Your task to perform on an android device: Open calendar and show me the first week of next month Image 0: 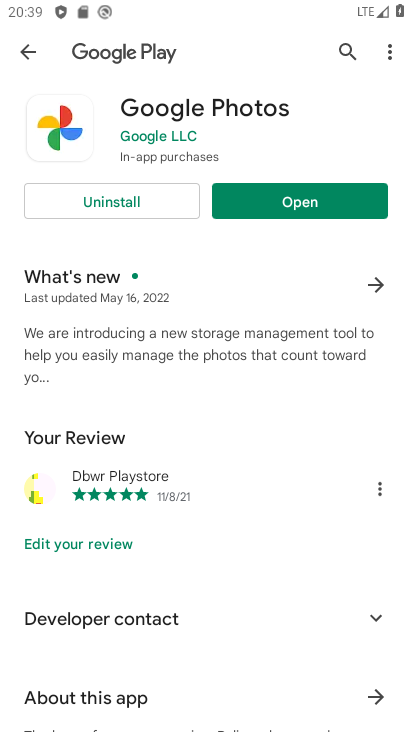
Step 0: press home button
Your task to perform on an android device: Open calendar and show me the first week of next month Image 1: 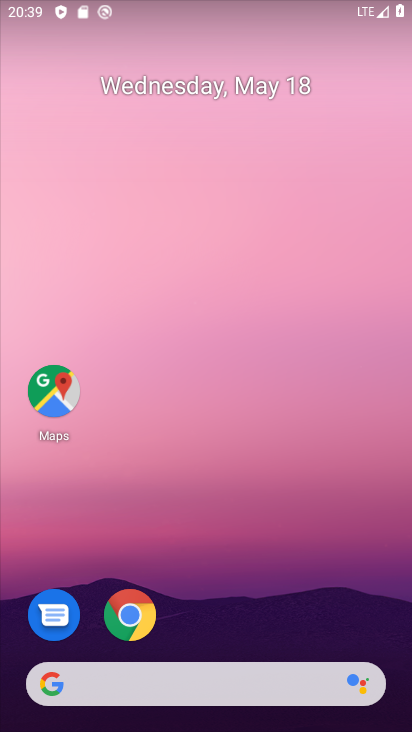
Step 1: drag from (252, 661) to (234, 90)
Your task to perform on an android device: Open calendar and show me the first week of next month Image 2: 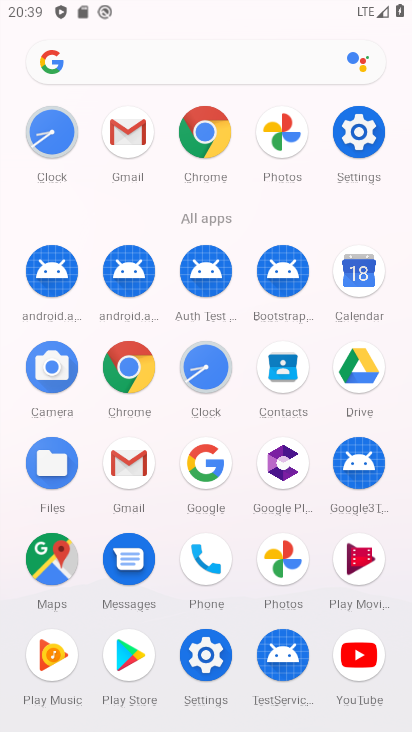
Step 2: click (362, 283)
Your task to perform on an android device: Open calendar and show me the first week of next month Image 3: 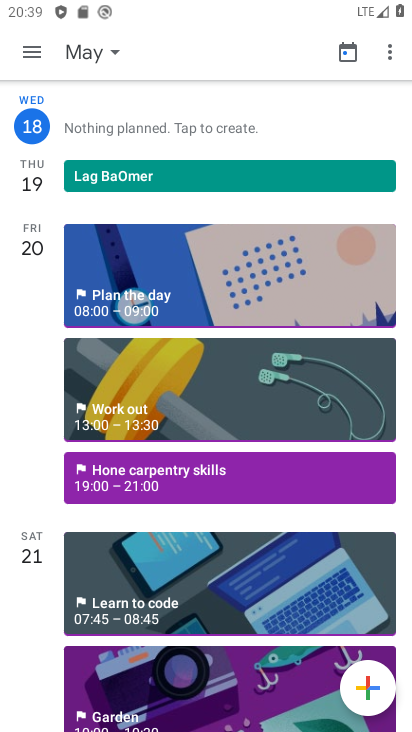
Step 3: click (44, 46)
Your task to perform on an android device: Open calendar and show me the first week of next month Image 4: 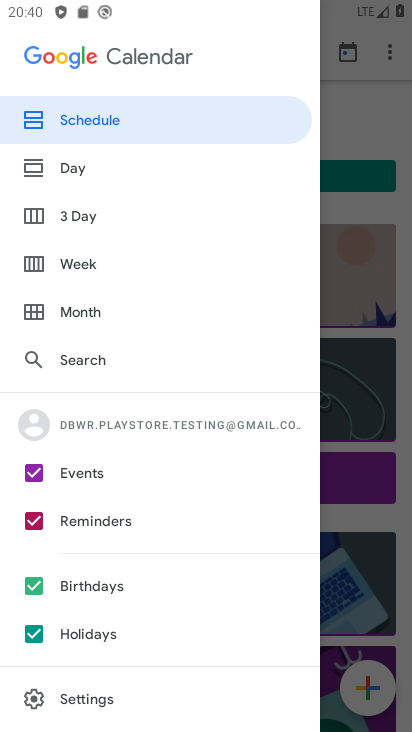
Step 4: click (89, 314)
Your task to perform on an android device: Open calendar and show me the first week of next month Image 5: 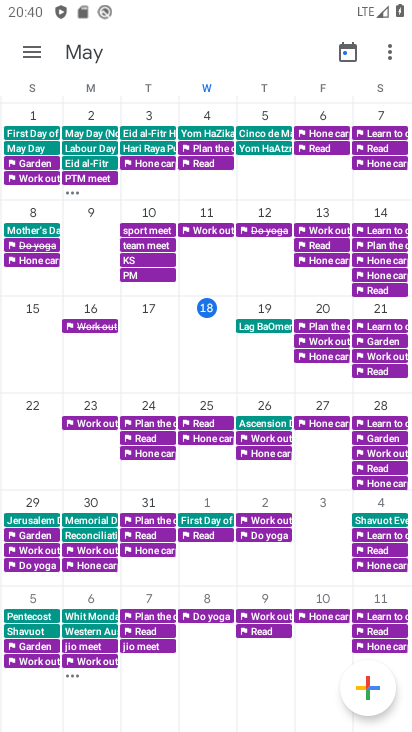
Step 5: task complete